Your task to perform on an android device: turn notification dots on Image 0: 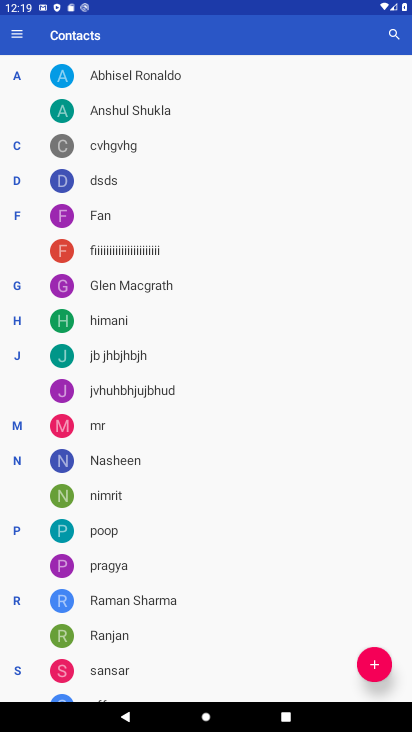
Step 0: press home button
Your task to perform on an android device: turn notification dots on Image 1: 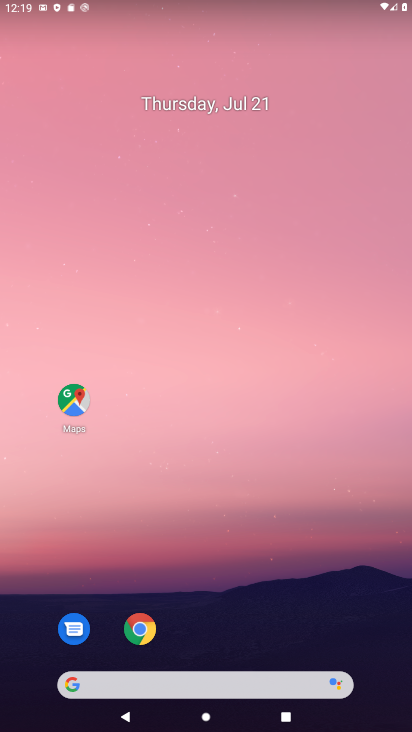
Step 1: drag from (286, 628) to (205, 173)
Your task to perform on an android device: turn notification dots on Image 2: 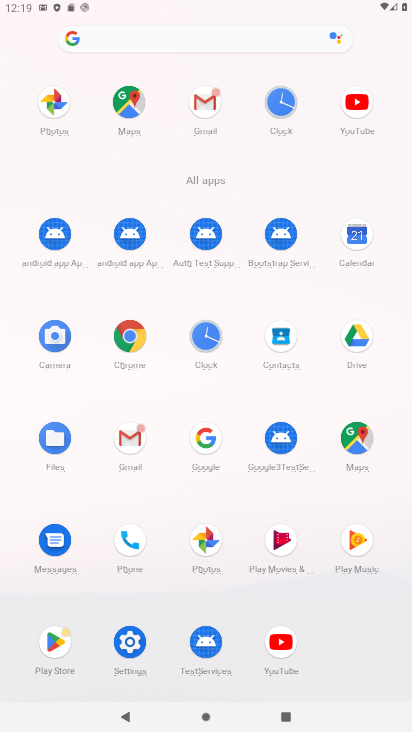
Step 2: click (126, 646)
Your task to perform on an android device: turn notification dots on Image 3: 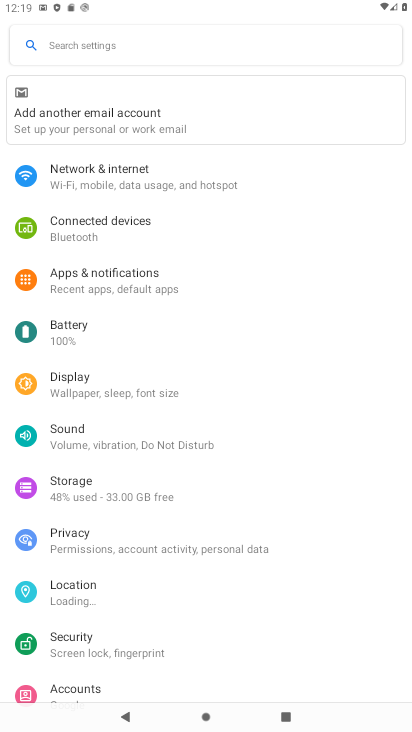
Step 3: click (197, 274)
Your task to perform on an android device: turn notification dots on Image 4: 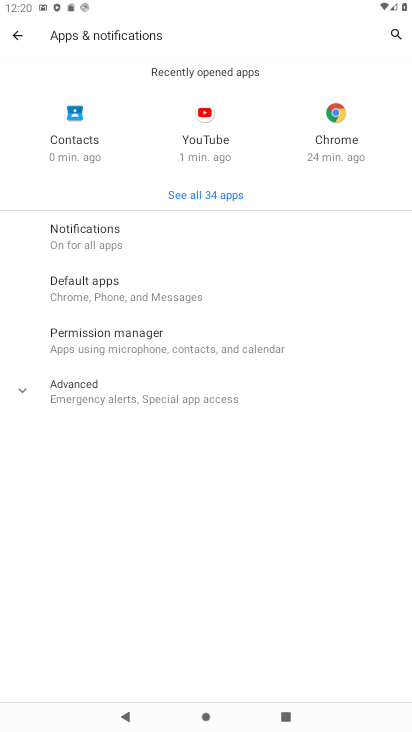
Step 4: click (191, 236)
Your task to perform on an android device: turn notification dots on Image 5: 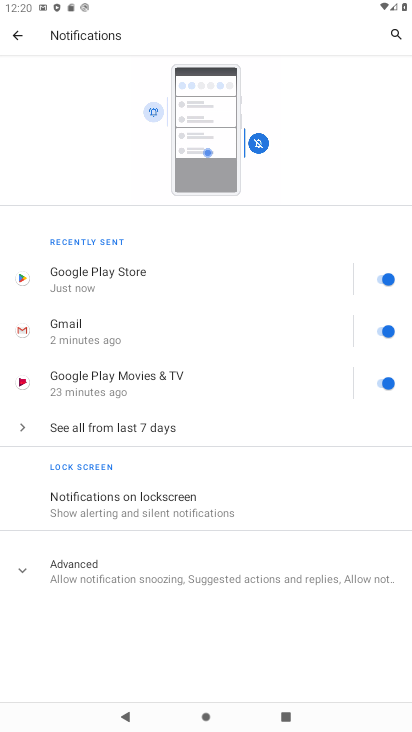
Step 5: click (235, 581)
Your task to perform on an android device: turn notification dots on Image 6: 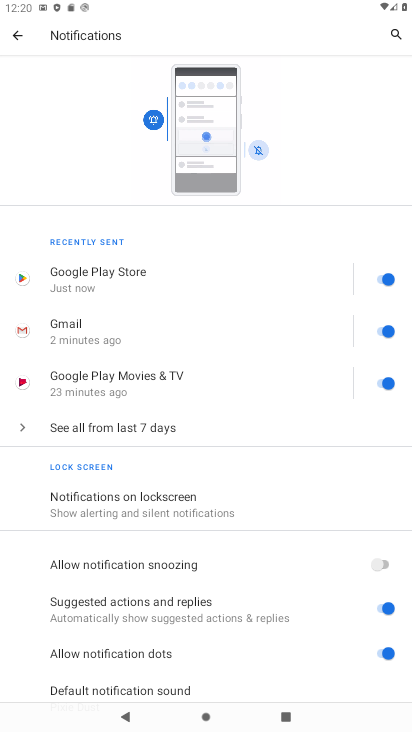
Step 6: task complete